Your task to perform on an android device: turn off picture-in-picture Image 0: 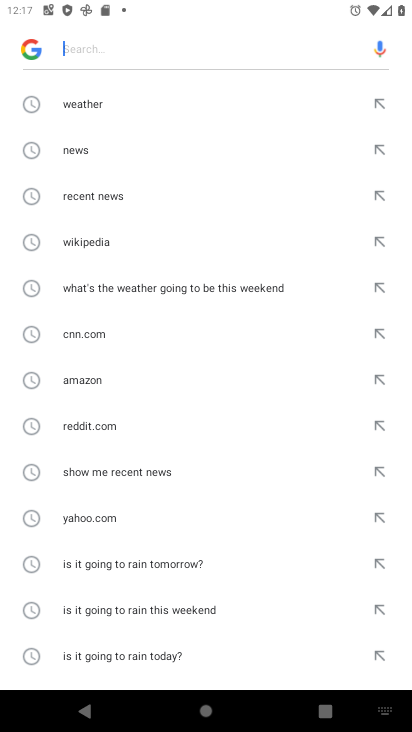
Step 0: press back button
Your task to perform on an android device: turn off picture-in-picture Image 1: 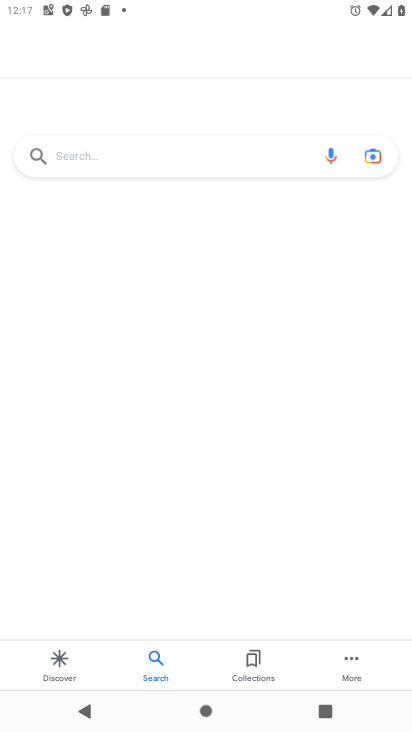
Step 1: press back button
Your task to perform on an android device: turn off picture-in-picture Image 2: 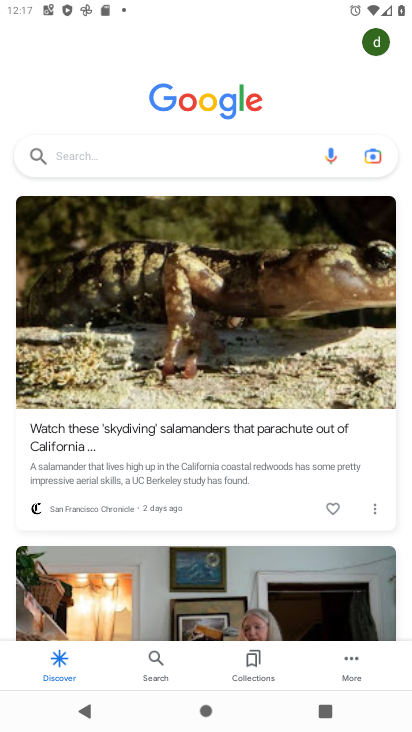
Step 2: press back button
Your task to perform on an android device: turn off picture-in-picture Image 3: 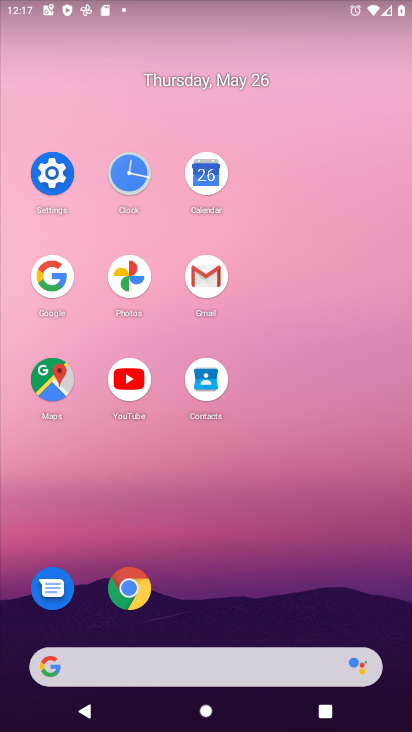
Step 3: click (139, 586)
Your task to perform on an android device: turn off picture-in-picture Image 4: 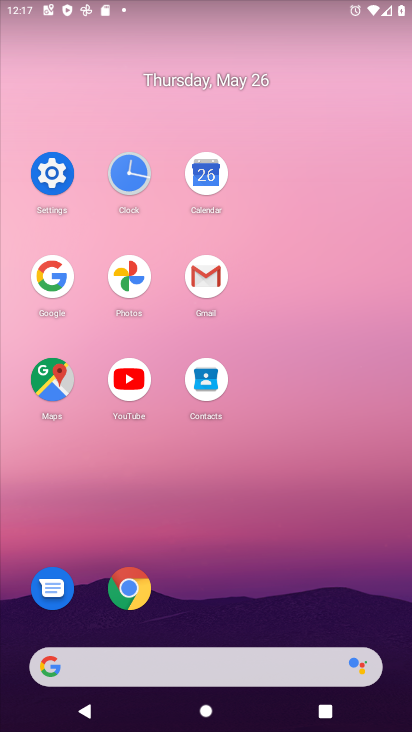
Step 4: click (140, 591)
Your task to perform on an android device: turn off picture-in-picture Image 5: 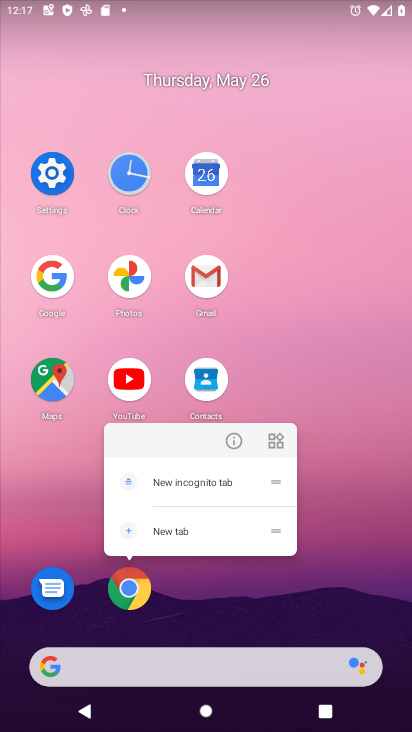
Step 5: click (232, 441)
Your task to perform on an android device: turn off picture-in-picture Image 6: 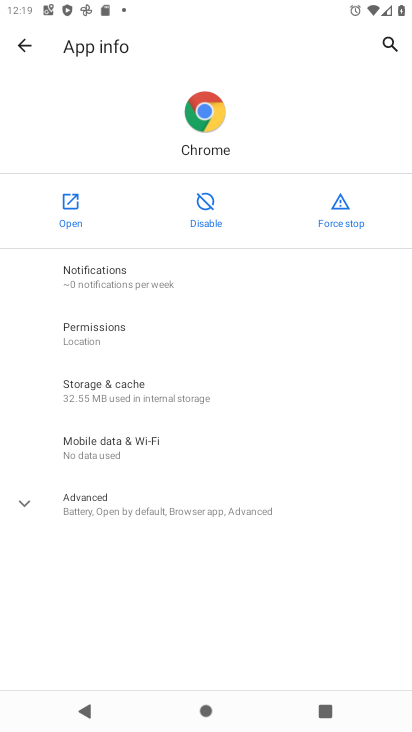
Step 6: click (149, 515)
Your task to perform on an android device: turn off picture-in-picture Image 7: 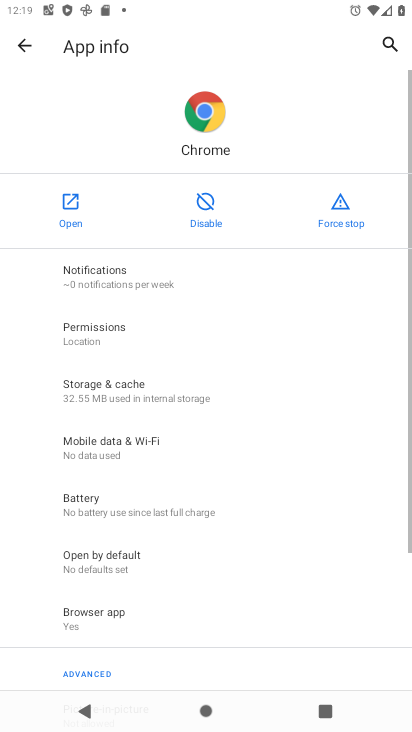
Step 7: drag from (174, 620) to (191, 247)
Your task to perform on an android device: turn off picture-in-picture Image 8: 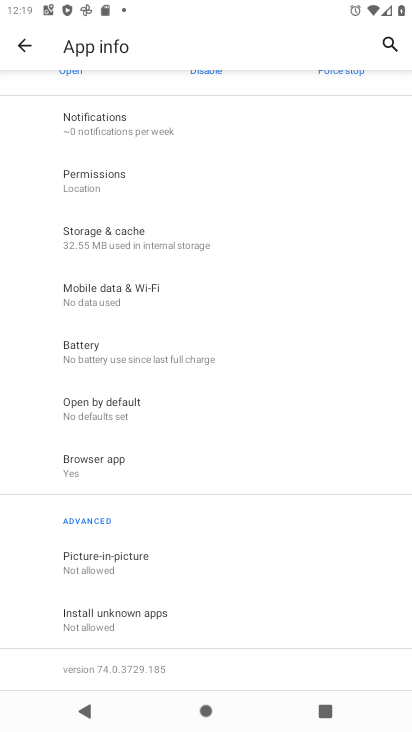
Step 8: click (169, 568)
Your task to perform on an android device: turn off picture-in-picture Image 9: 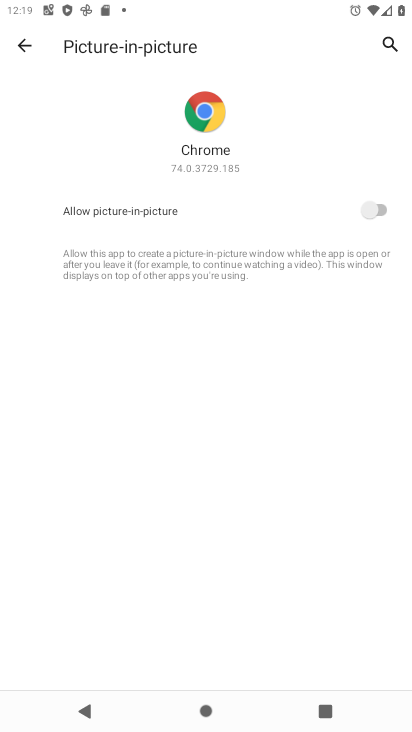
Step 9: task complete